Your task to perform on an android device: Is it going to rain today? Image 0: 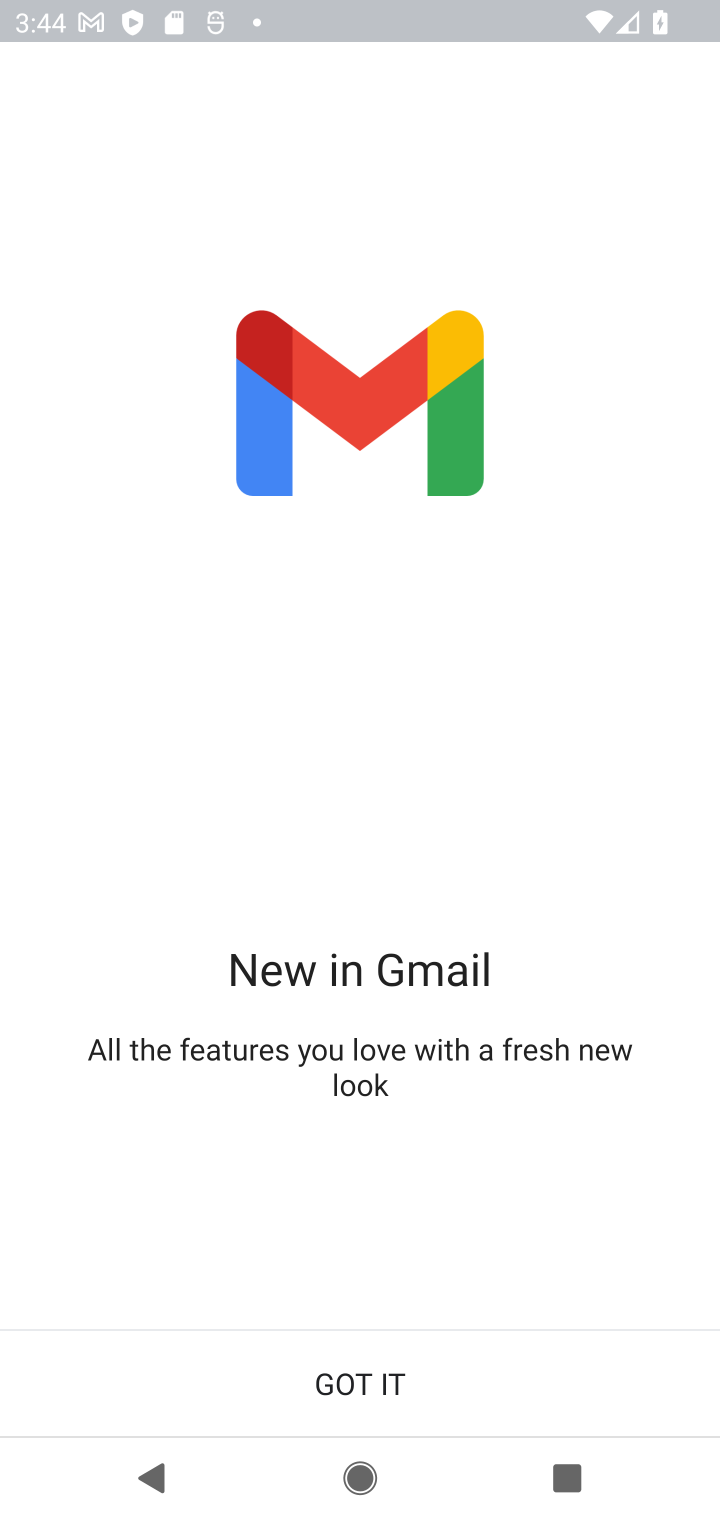
Step 0: press home button
Your task to perform on an android device: Is it going to rain today? Image 1: 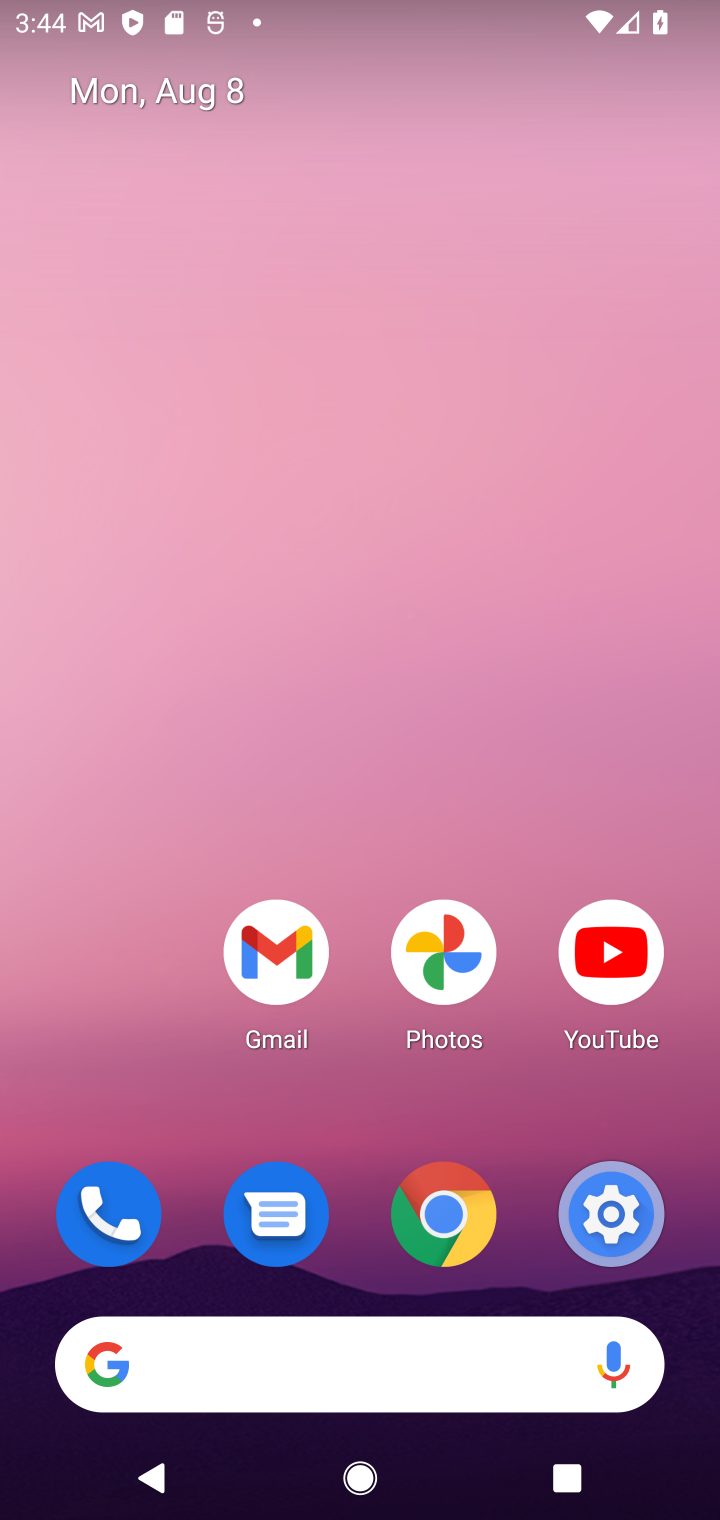
Step 1: drag from (370, 1267) to (332, 317)
Your task to perform on an android device: Is it going to rain today? Image 2: 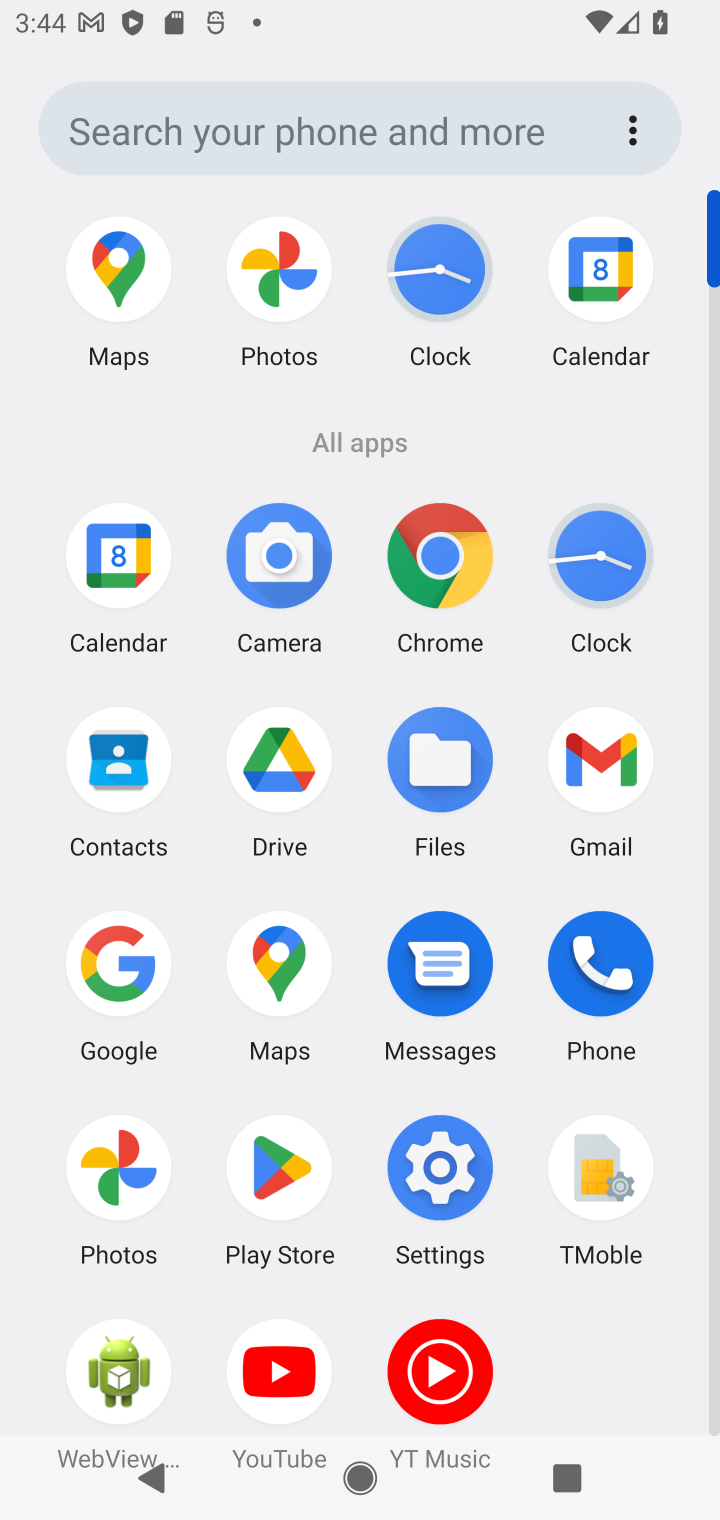
Step 2: click (111, 955)
Your task to perform on an android device: Is it going to rain today? Image 3: 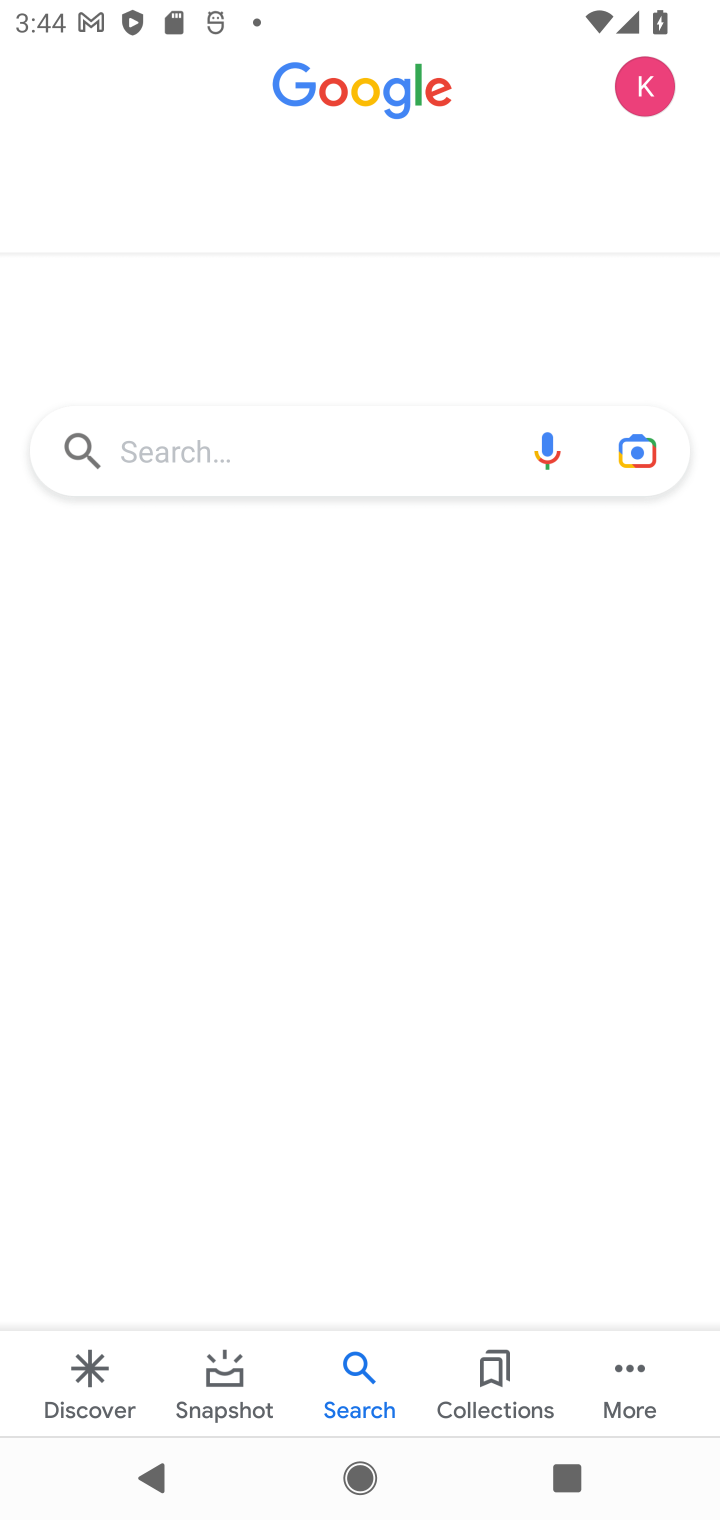
Step 3: click (265, 458)
Your task to perform on an android device: Is it going to rain today? Image 4: 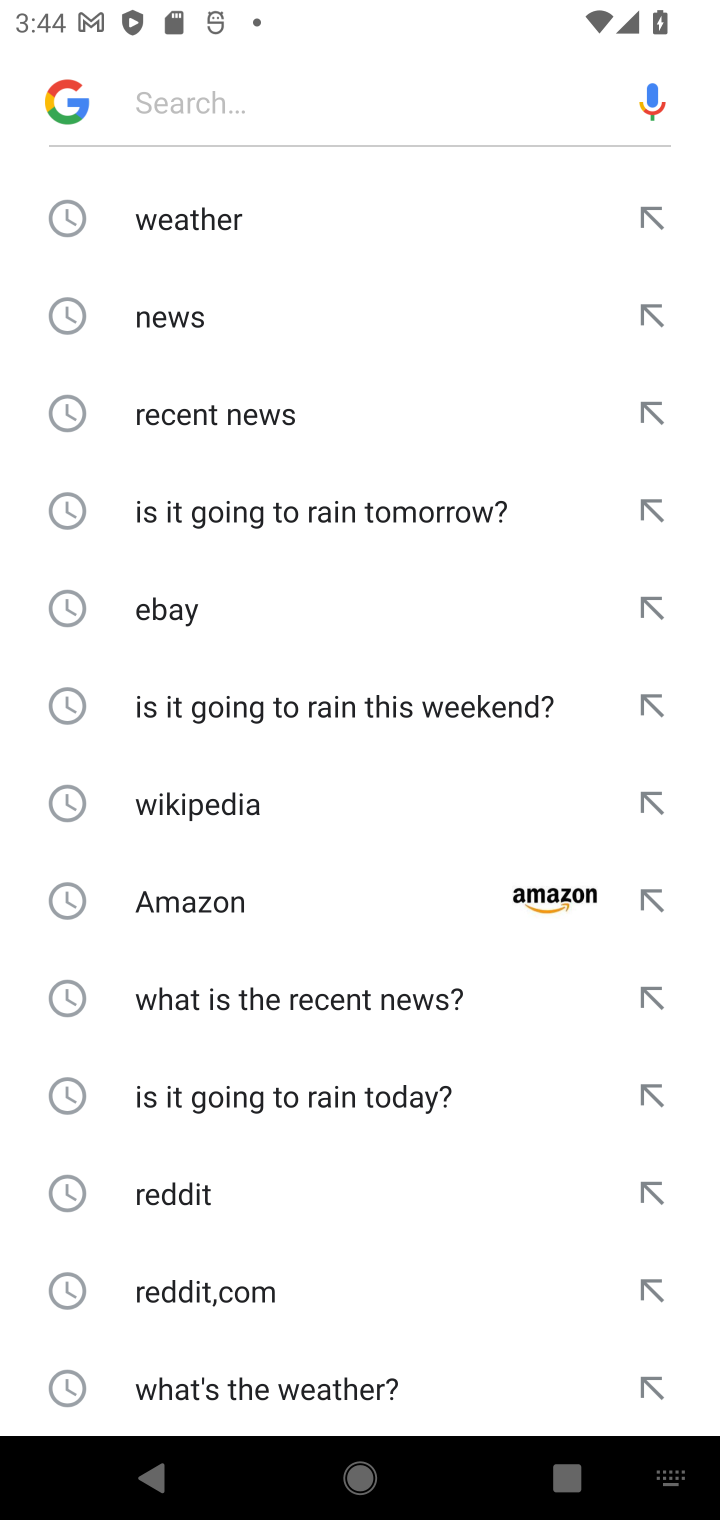
Step 4: click (177, 207)
Your task to perform on an android device: Is it going to rain today? Image 5: 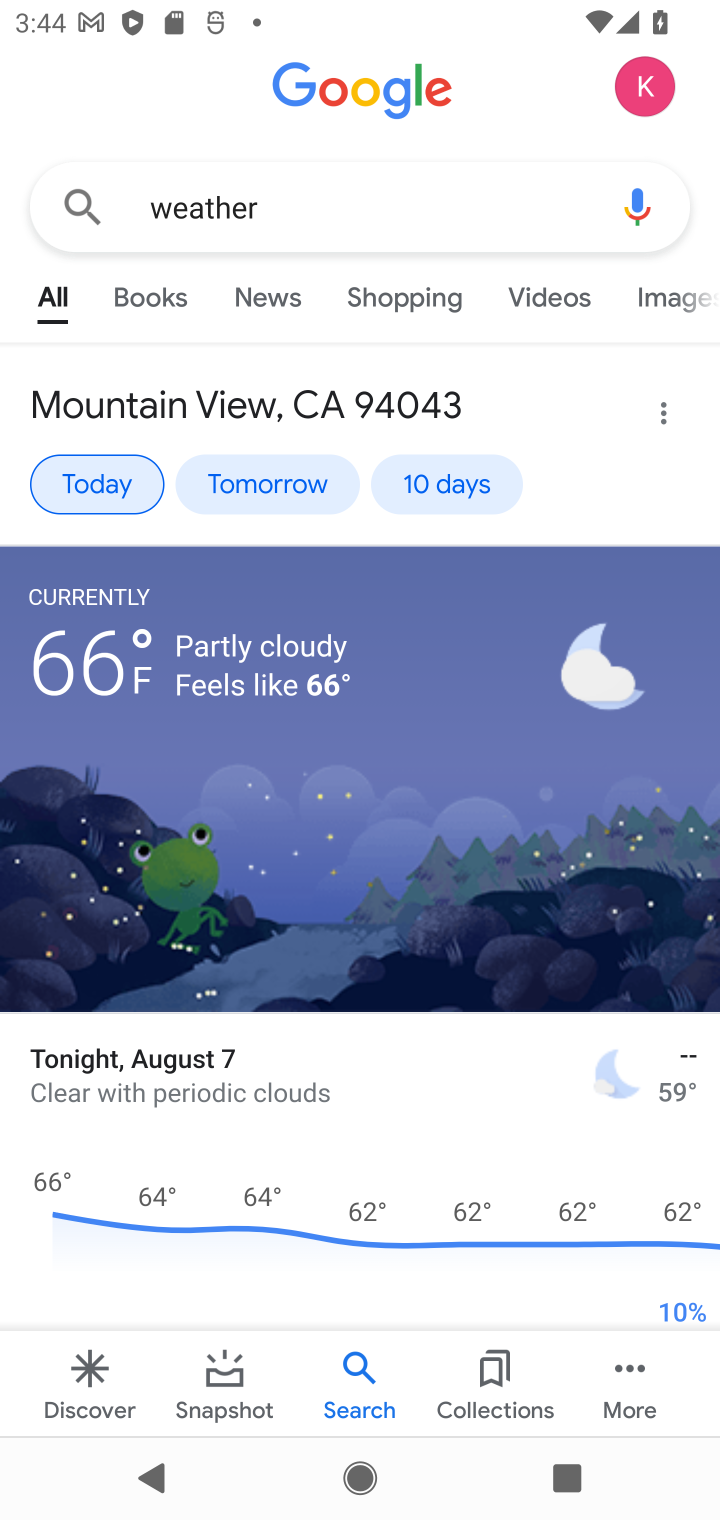
Step 5: click (99, 489)
Your task to perform on an android device: Is it going to rain today? Image 6: 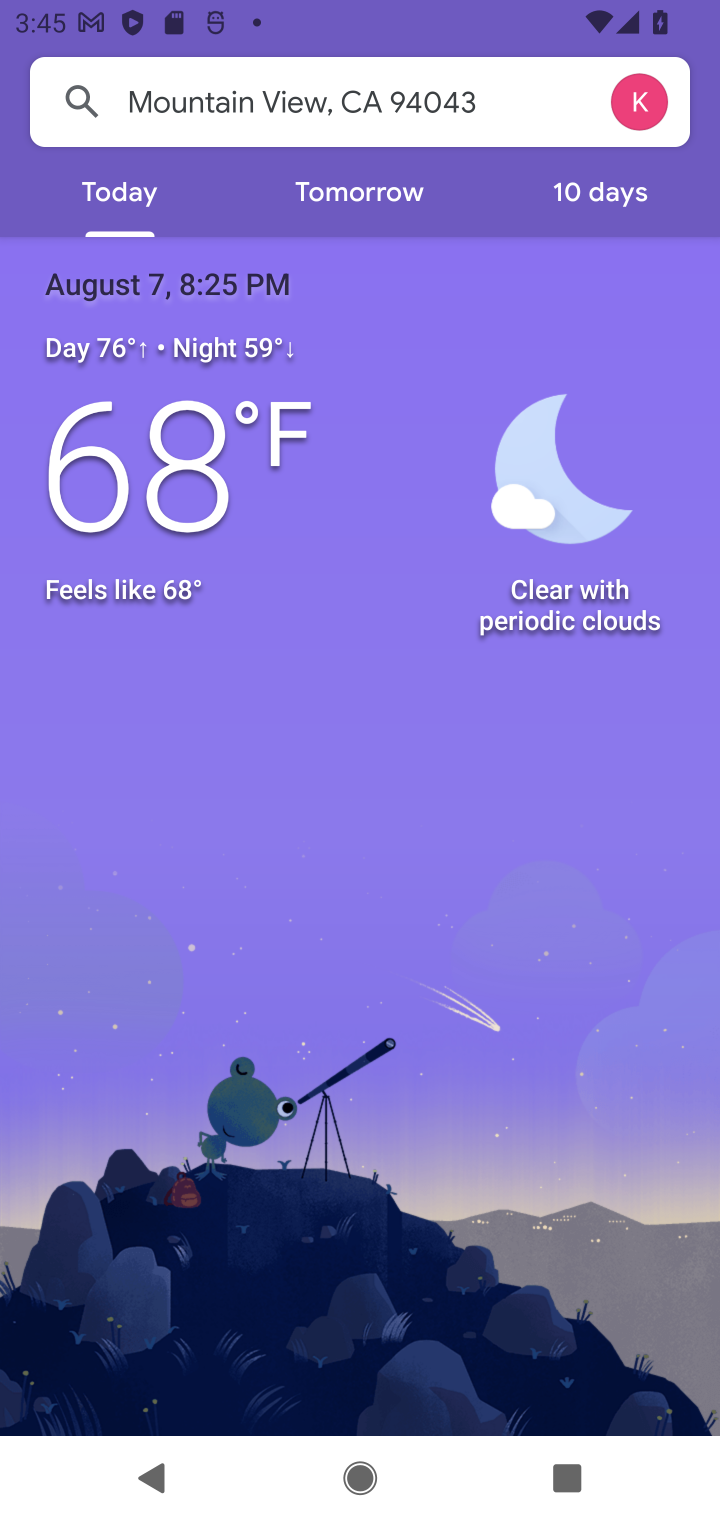
Step 6: task complete